Your task to perform on an android device: Show me popular games on the Play Store Image 0: 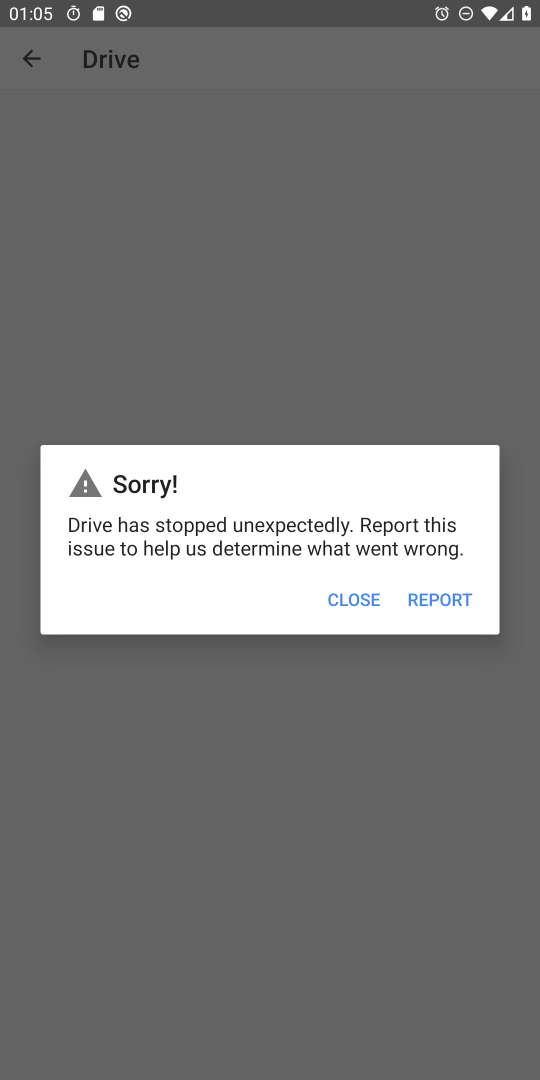
Step 0: press home button
Your task to perform on an android device: Show me popular games on the Play Store Image 1: 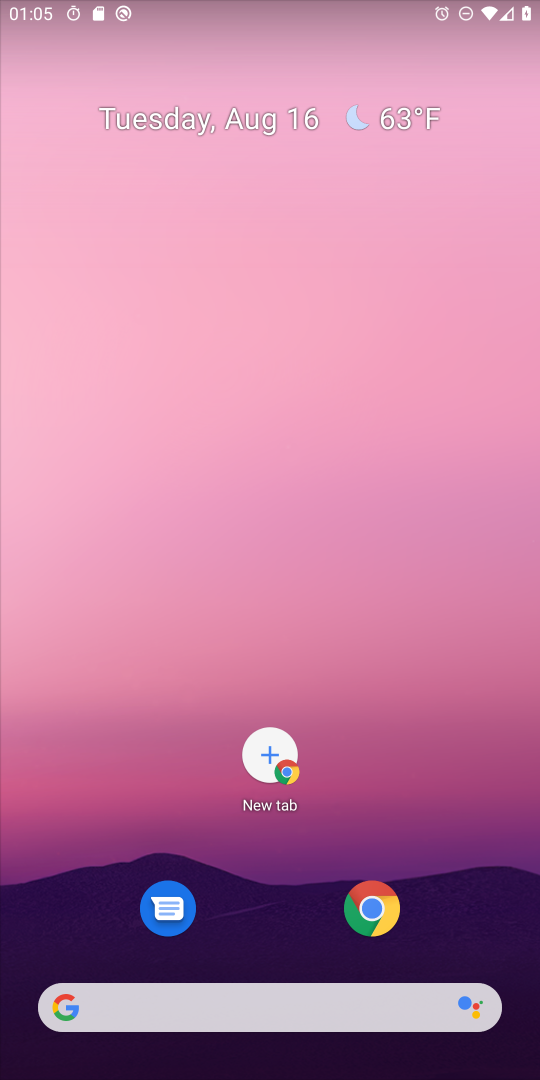
Step 1: drag from (268, 963) to (438, 202)
Your task to perform on an android device: Show me popular games on the Play Store Image 2: 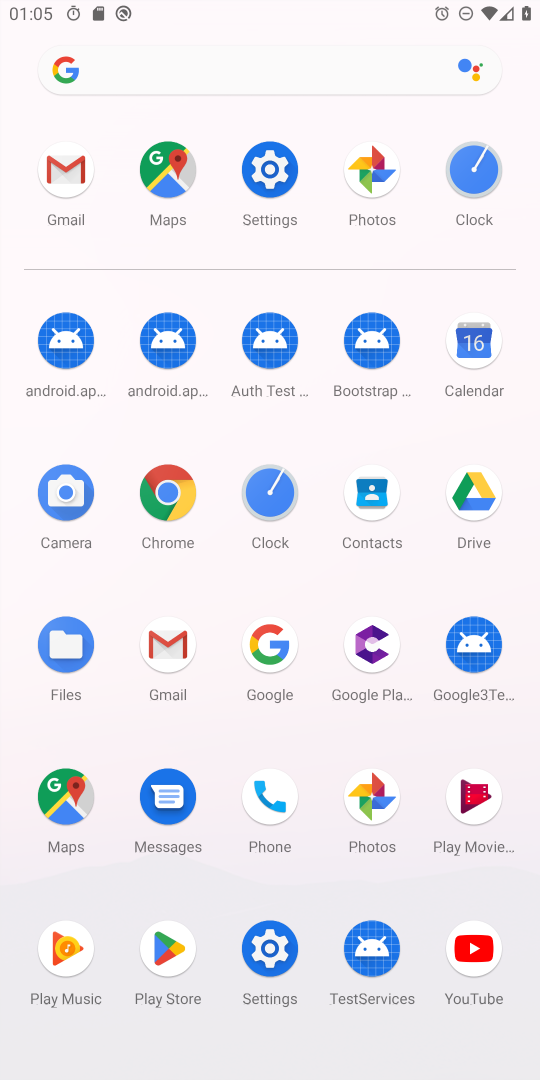
Step 2: click (151, 957)
Your task to perform on an android device: Show me popular games on the Play Store Image 3: 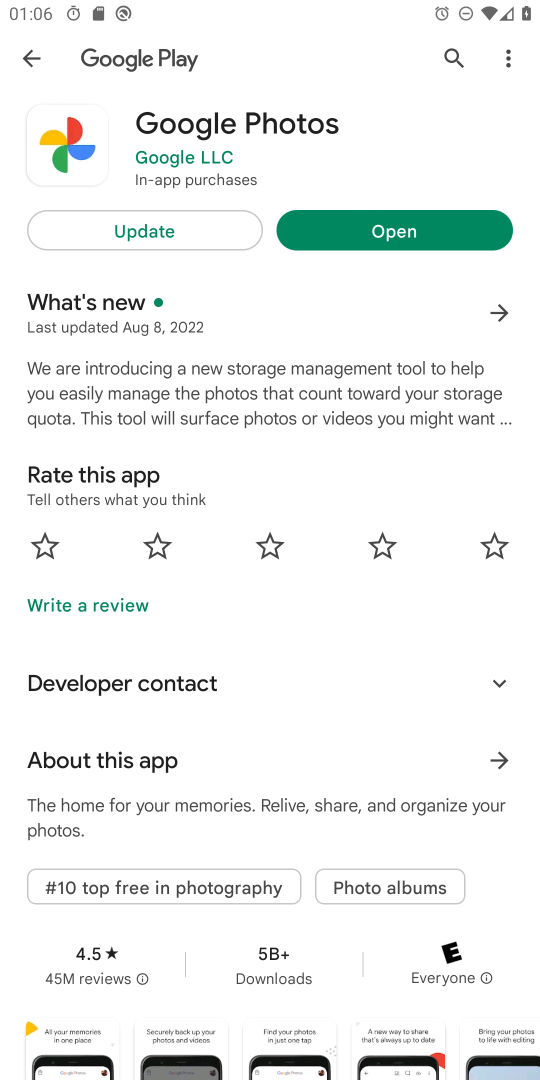
Step 3: click (34, 58)
Your task to perform on an android device: Show me popular games on the Play Store Image 4: 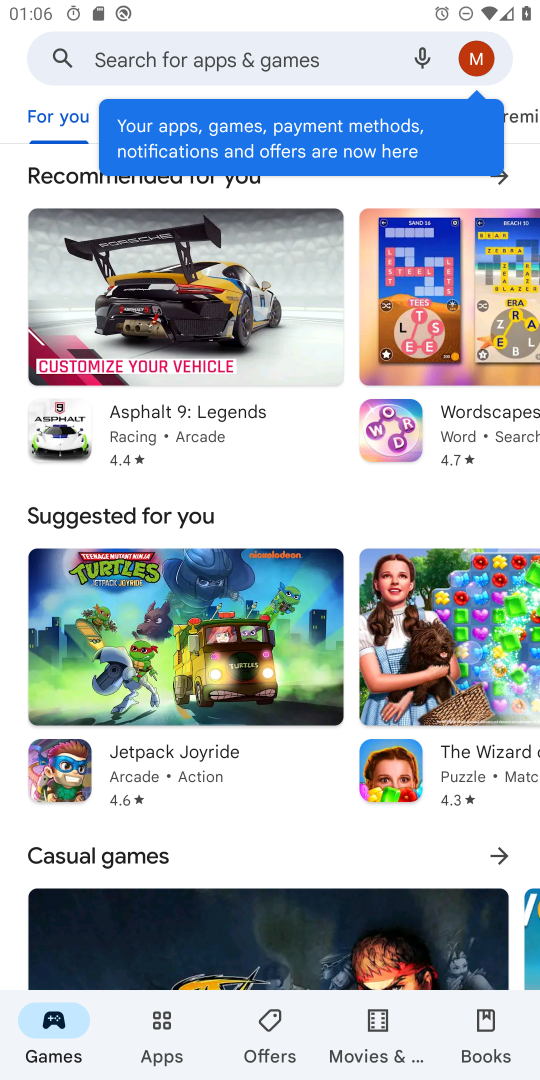
Step 4: click (69, 130)
Your task to perform on an android device: Show me popular games on the Play Store Image 5: 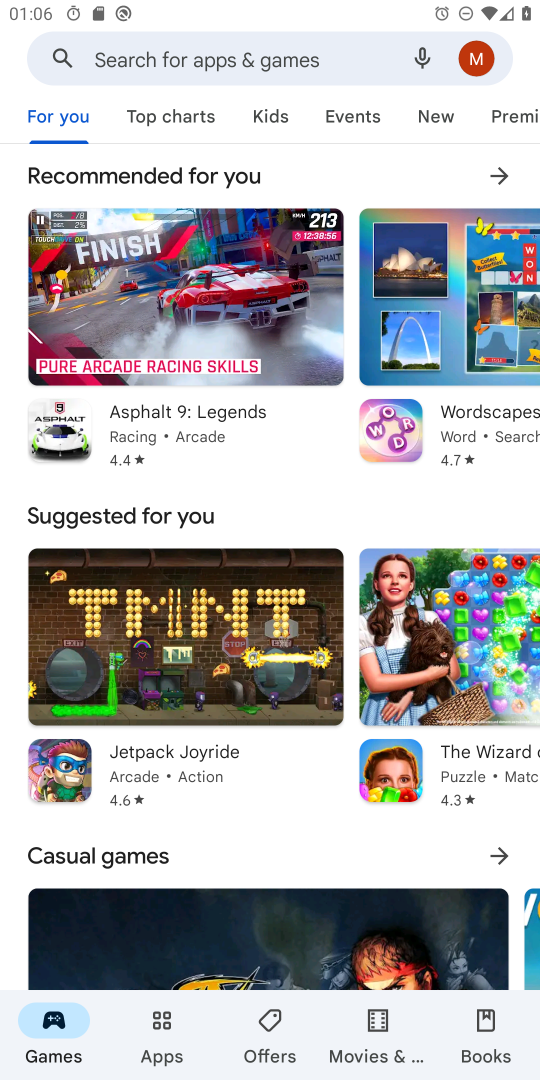
Step 5: click (147, 126)
Your task to perform on an android device: Show me popular games on the Play Store Image 6: 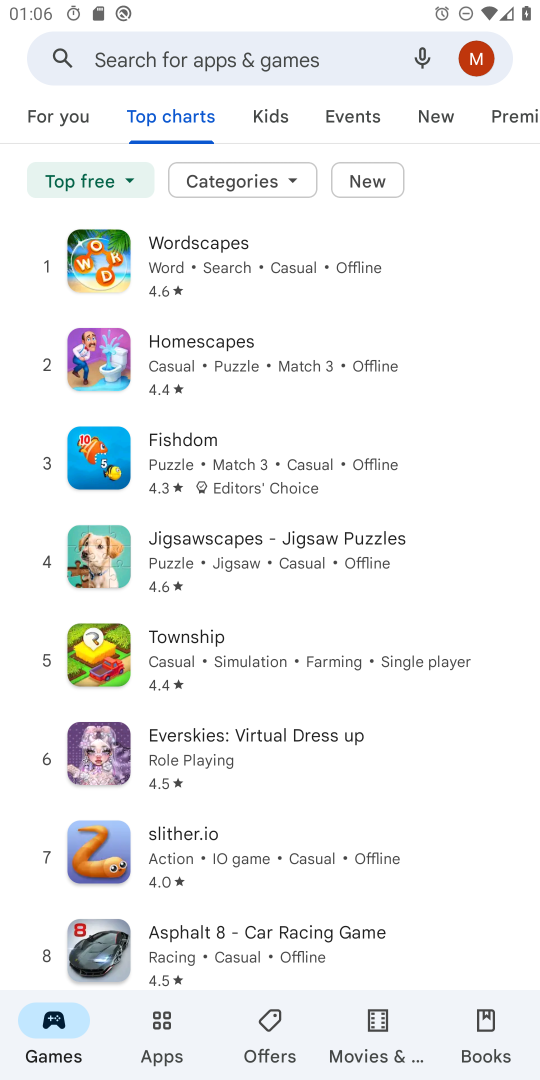
Step 6: task complete